Your task to perform on an android device: set default search engine in the chrome app Image 0: 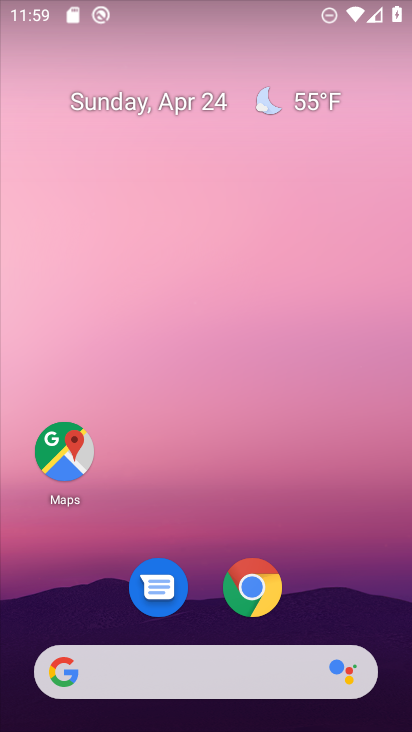
Step 0: drag from (306, 548) to (331, 152)
Your task to perform on an android device: set default search engine in the chrome app Image 1: 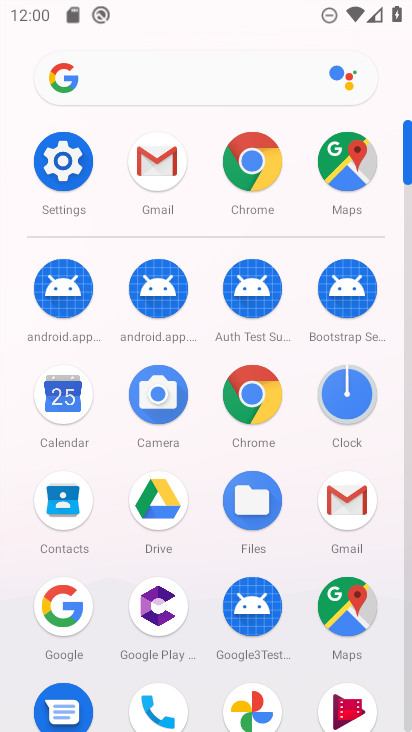
Step 1: click (255, 394)
Your task to perform on an android device: set default search engine in the chrome app Image 2: 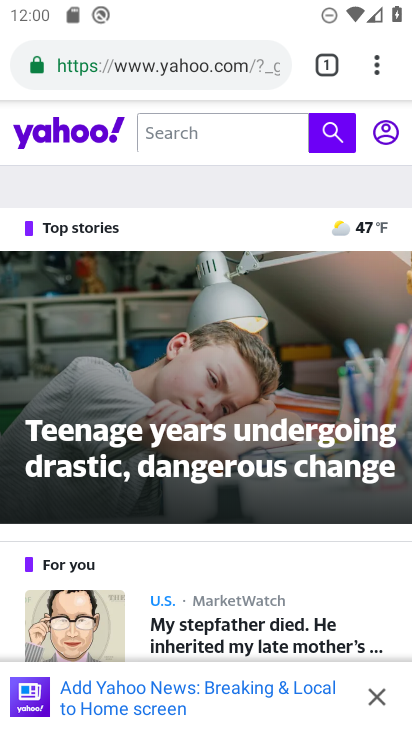
Step 2: drag from (385, 59) to (178, 632)
Your task to perform on an android device: set default search engine in the chrome app Image 3: 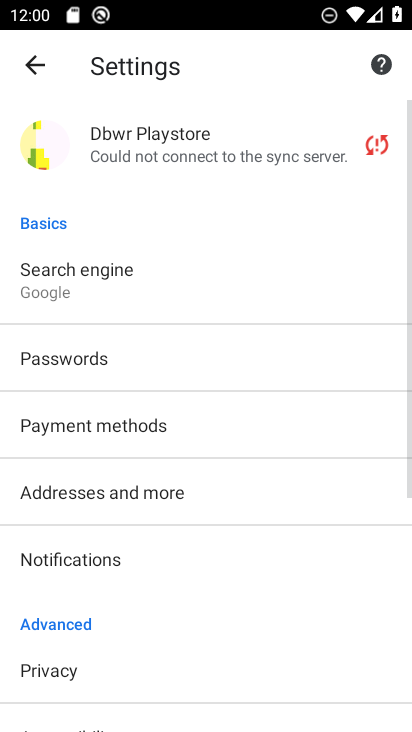
Step 3: click (193, 288)
Your task to perform on an android device: set default search engine in the chrome app Image 4: 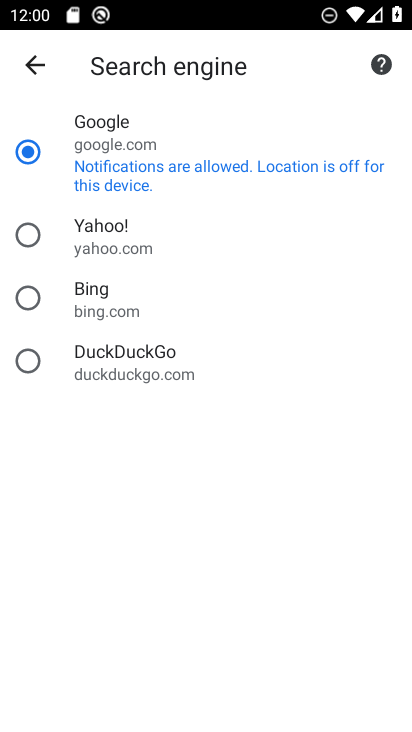
Step 4: task complete